Your task to perform on an android device: Turn on the flashlight Image 0: 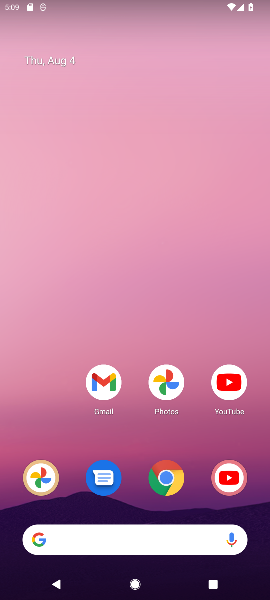
Step 0: drag from (31, 288) to (207, 13)
Your task to perform on an android device: Turn on the flashlight Image 1: 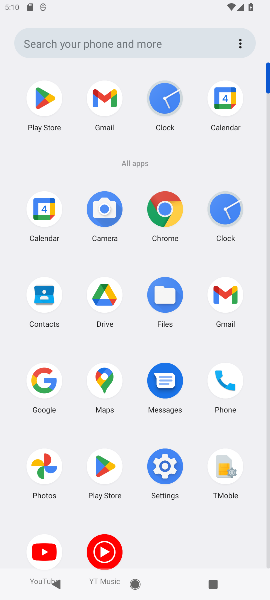
Step 1: click (170, 469)
Your task to perform on an android device: Turn on the flashlight Image 2: 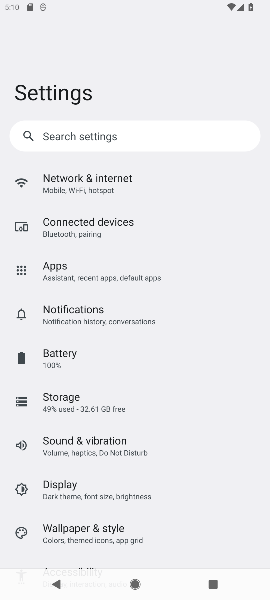
Step 2: click (139, 127)
Your task to perform on an android device: Turn on the flashlight Image 3: 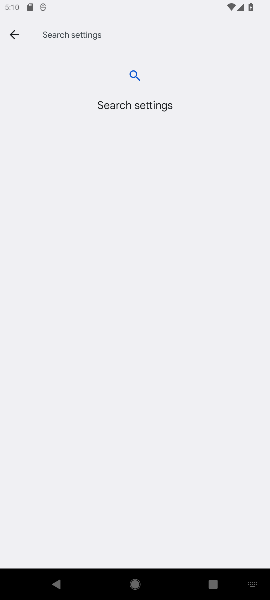
Step 3: type "flashlight"
Your task to perform on an android device: Turn on the flashlight Image 4: 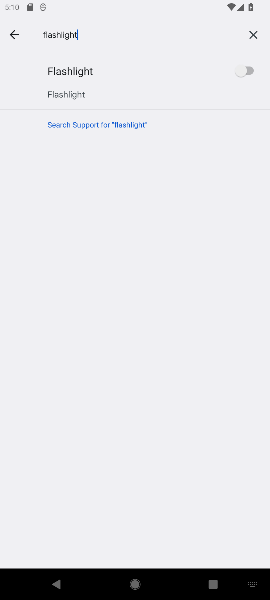
Step 4: click (260, 71)
Your task to perform on an android device: Turn on the flashlight Image 5: 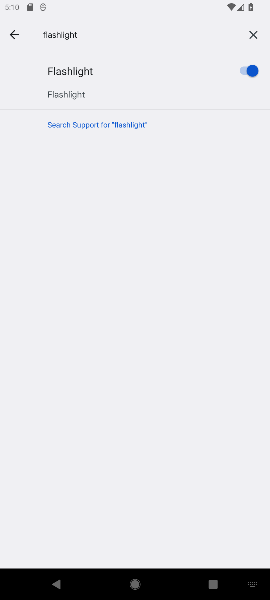
Step 5: task complete